Your task to perform on an android device: Go to eBay Image 0: 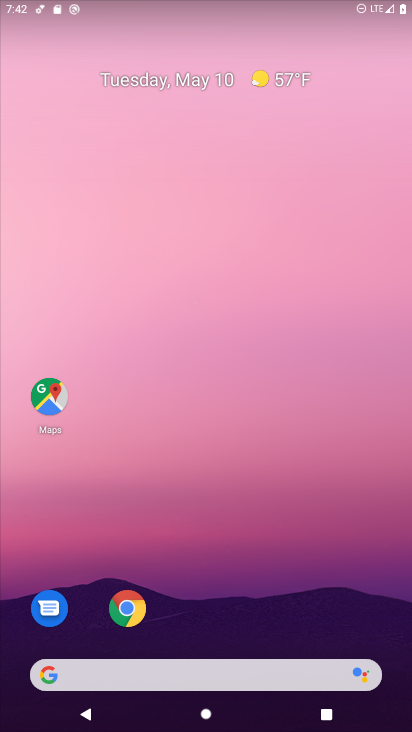
Step 0: drag from (351, 624) to (290, 180)
Your task to perform on an android device: Go to eBay Image 1: 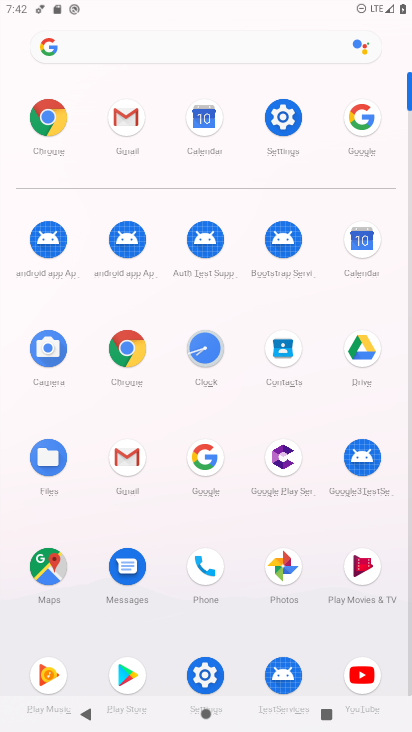
Step 1: click (122, 344)
Your task to perform on an android device: Go to eBay Image 2: 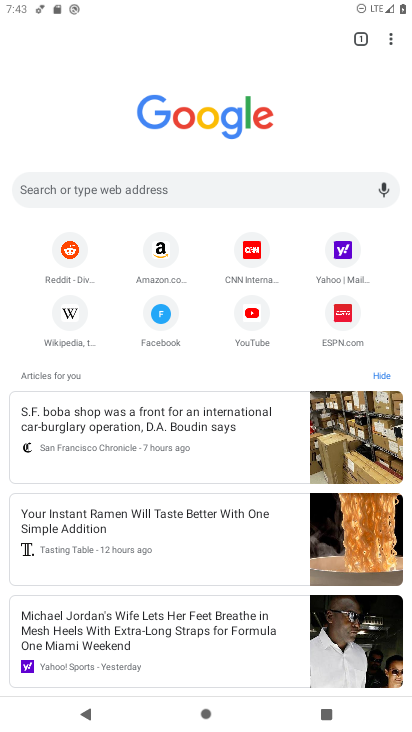
Step 2: click (167, 182)
Your task to perform on an android device: Go to eBay Image 3: 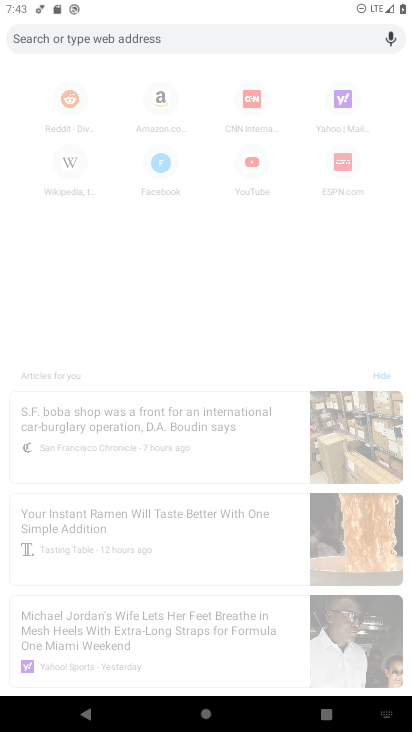
Step 3: type "ebay"
Your task to perform on an android device: Go to eBay Image 4: 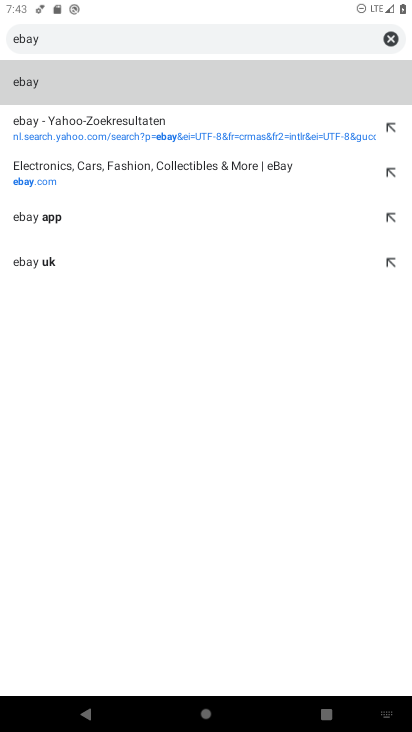
Step 4: click (53, 87)
Your task to perform on an android device: Go to eBay Image 5: 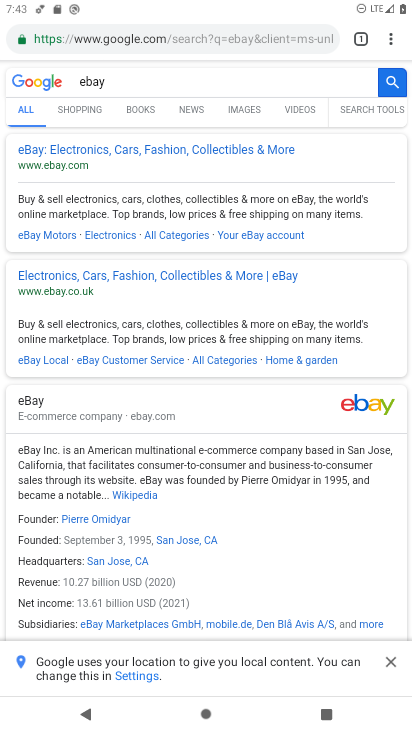
Step 5: click (137, 177)
Your task to perform on an android device: Go to eBay Image 6: 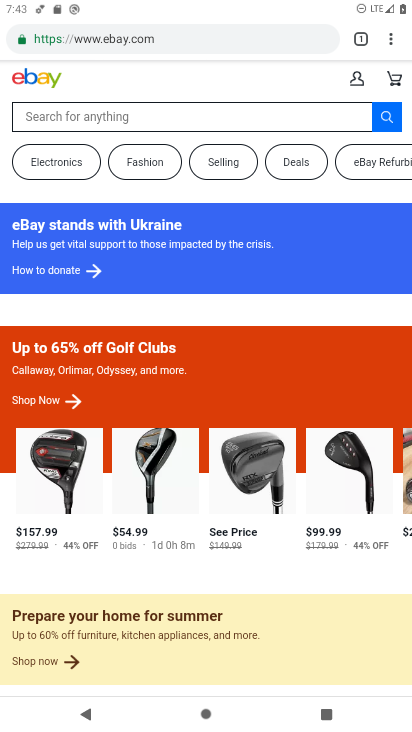
Step 6: task complete